Your task to perform on an android device: toggle improve location accuracy Image 0: 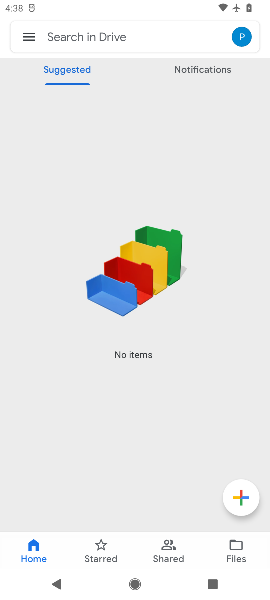
Step 0: press home button
Your task to perform on an android device: toggle improve location accuracy Image 1: 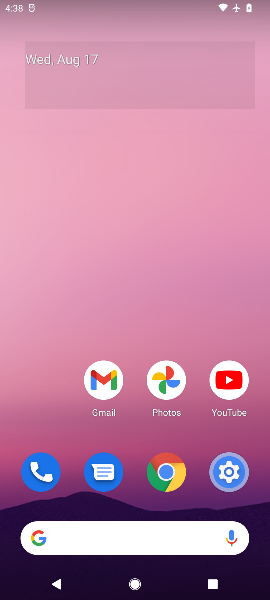
Step 1: drag from (126, 505) to (129, 87)
Your task to perform on an android device: toggle improve location accuracy Image 2: 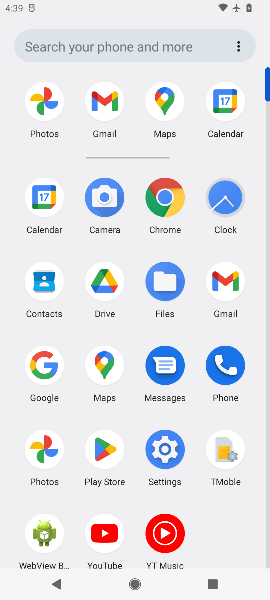
Step 2: click (176, 456)
Your task to perform on an android device: toggle improve location accuracy Image 3: 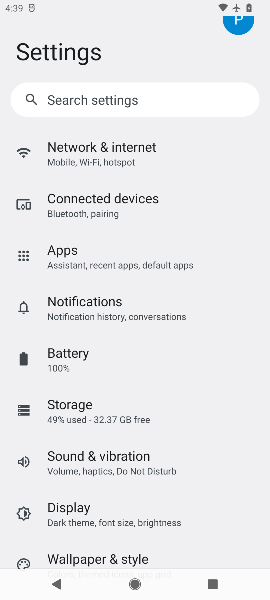
Step 3: drag from (102, 493) to (111, 264)
Your task to perform on an android device: toggle improve location accuracy Image 4: 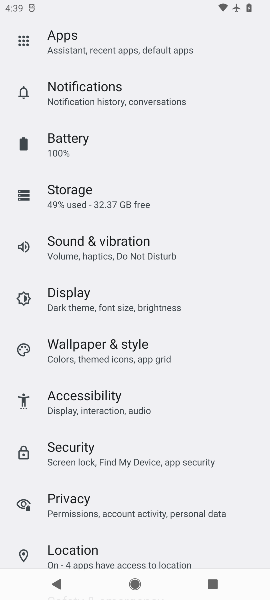
Step 4: click (89, 546)
Your task to perform on an android device: toggle improve location accuracy Image 5: 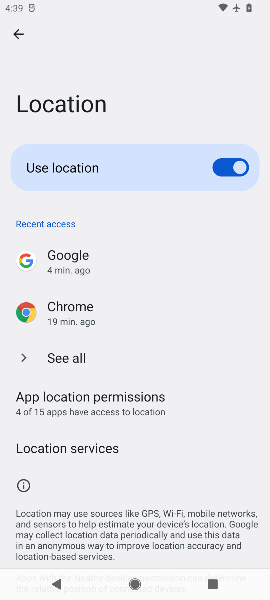
Step 5: click (98, 448)
Your task to perform on an android device: toggle improve location accuracy Image 6: 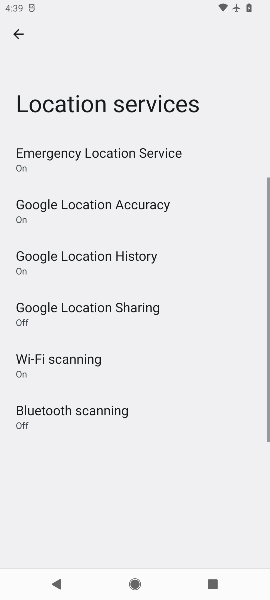
Step 6: click (144, 205)
Your task to perform on an android device: toggle improve location accuracy Image 7: 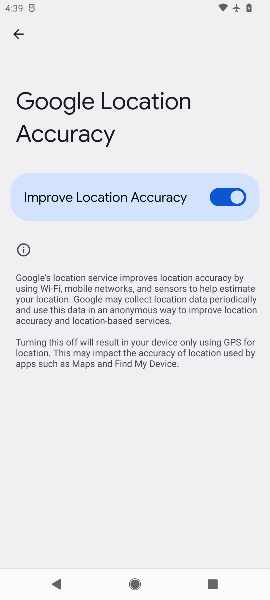
Step 7: click (212, 187)
Your task to perform on an android device: toggle improve location accuracy Image 8: 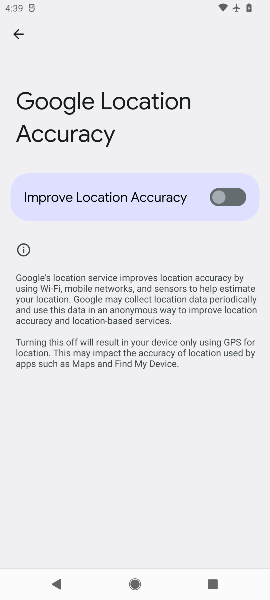
Step 8: task complete